Your task to perform on an android device: star an email in the gmail app Image 0: 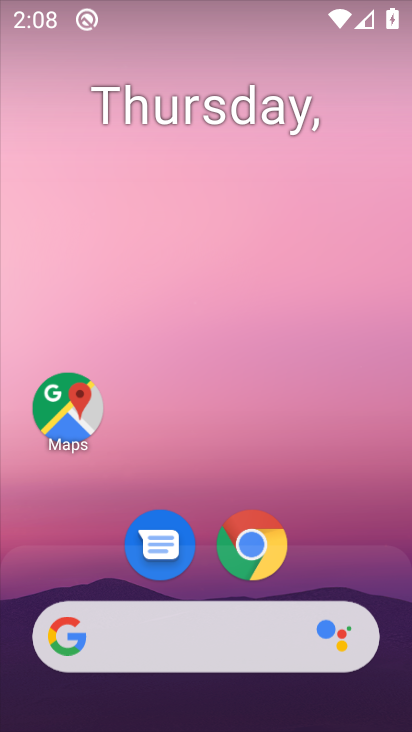
Step 0: drag from (195, 613) to (214, 24)
Your task to perform on an android device: star an email in the gmail app Image 1: 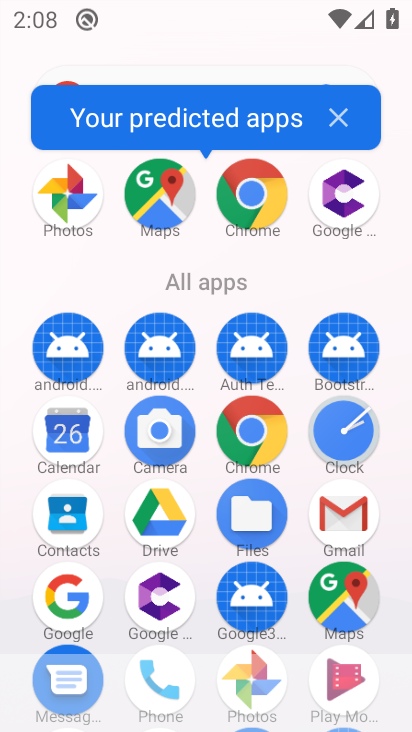
Step 1: click (356, 516)
Your task to perform on an android device: star an email in the gmail app Image 2: 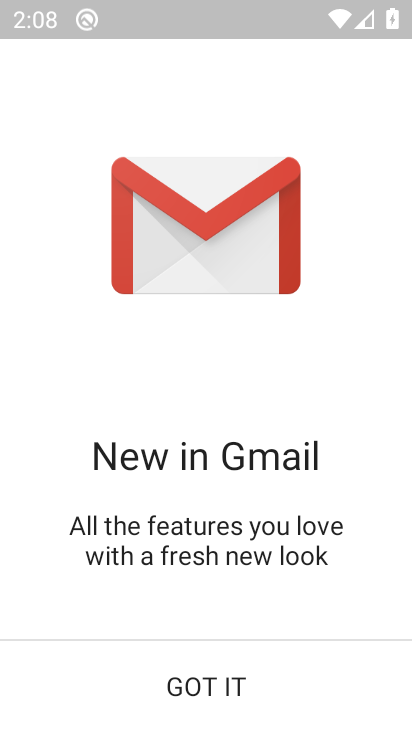
Step 2: click (223, 679)
Your task to perform on an android device: star an email in the gmail app Image 3: 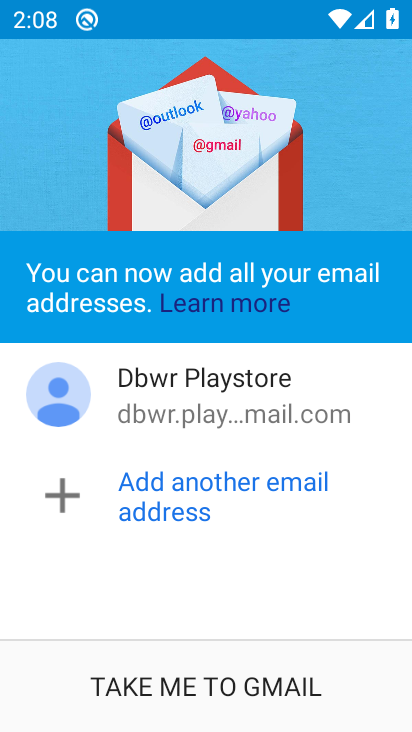
Step 3: click (223, 679)
Your task to perform on an android device: star an email in the gmail app Image 4: 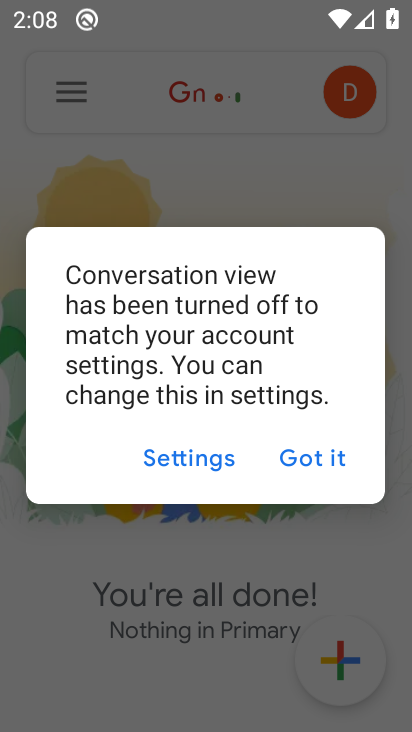
Step 4: click (311, 463)
Your task to perform on an android device: star an email in the gmail app Image 5: 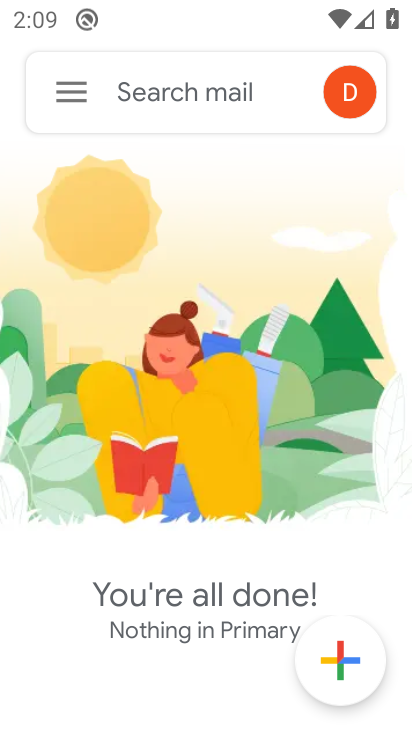
Step 5: click (69, 88)
Your task to perform on an android device: star an email in the gmail app Image 6: 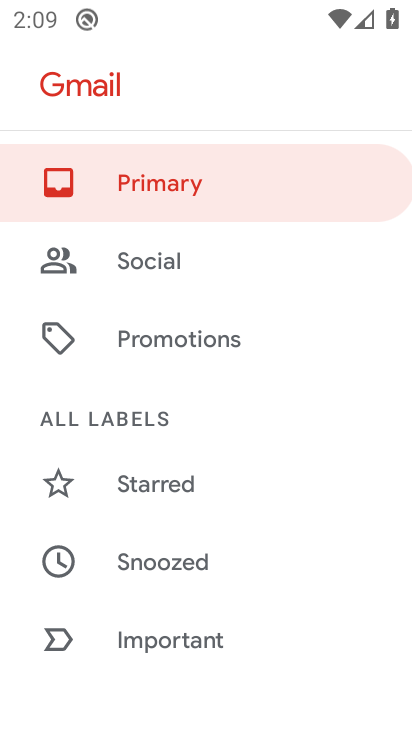
Step 6: click (145, 482)
Your task to perform on an android device: star an email in the gmail app Image 7: 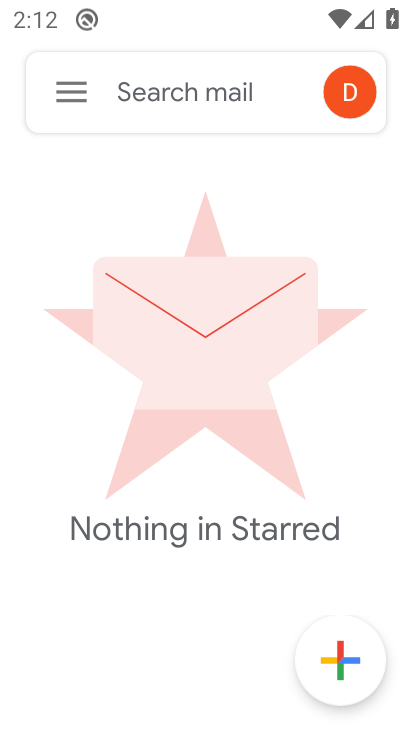
Step 7: task complete